Your task to perform on an android device: toggle show notifications on the lock screen Image 0: 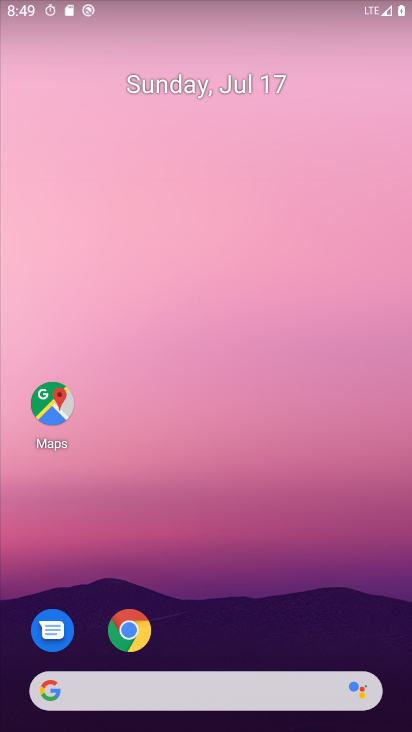
Step 0: drag from (137, 304) to (206, 13)
Your task to perform on an android device: toggle show notifications on the lock screen Image 1: 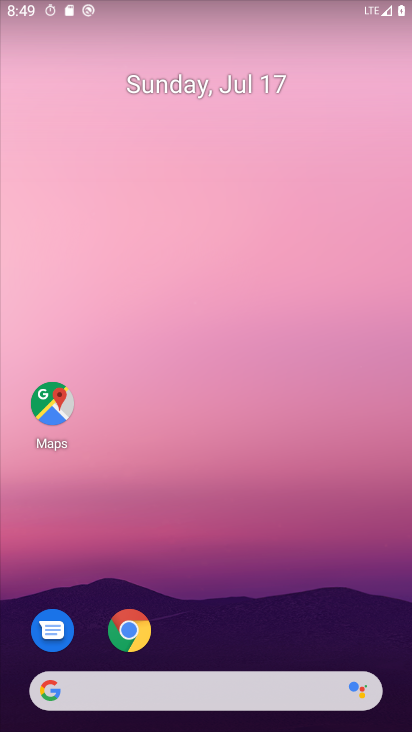
Step 1: drag from (210, 641) to (123, 18)
Your task to perform on an android device: toggle show notifications on the lock screen Image 2: 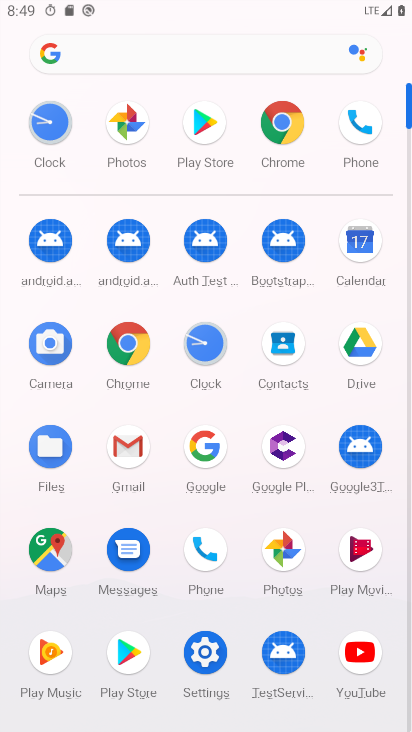
Step 2: click (213, 670)
Your task to perform on an android device: toggle show notifications on the lock screen Image 3: 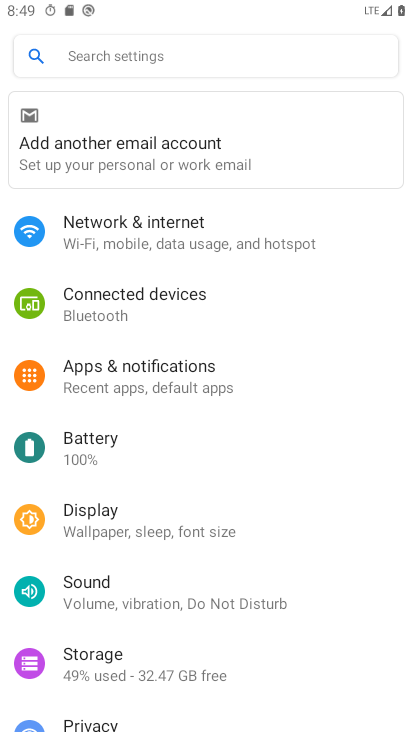
Step 3: click (128, 384)
Your task to perform on an android device: toggle show notifications on the lock screen Image 4: 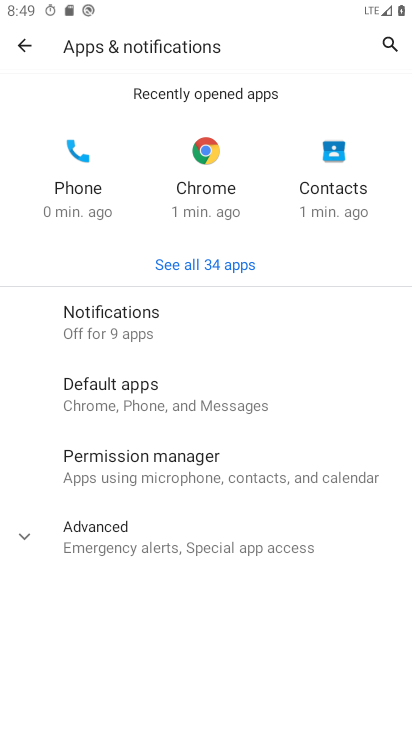
Step 4: click (134, 332)
Your task to perform on an android device: toggle show notifications on the lock screen Image 5: 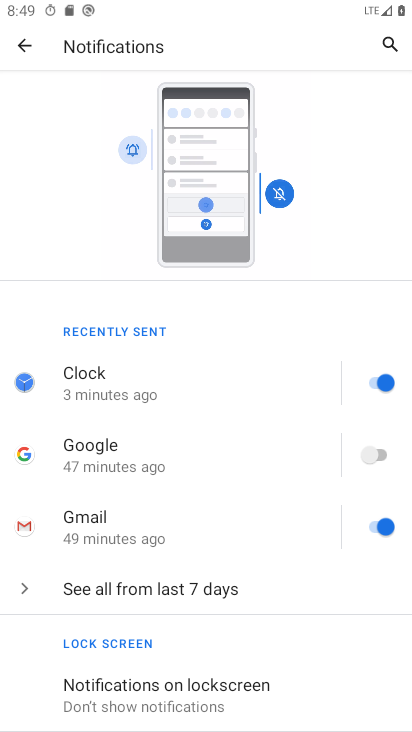
Step 5: drag from (160, 558) to (155, 379)
Your task to perform on an android device: toggle show notifications on the lock screen Image 6: 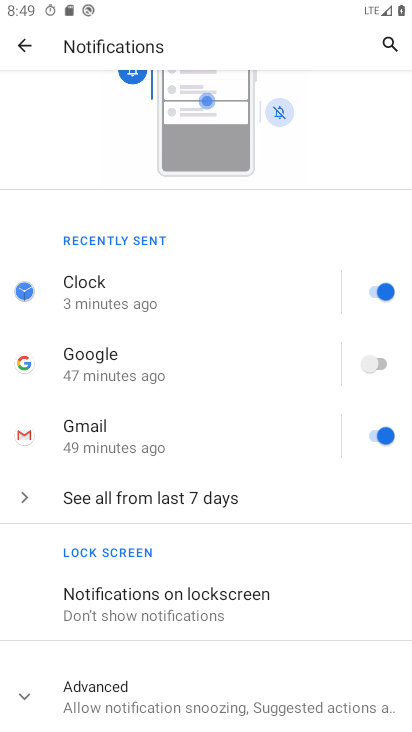
Step 6: click (147, 606)
Your task to perform on an android device: toggle show notifications on the lock screen Image 7: 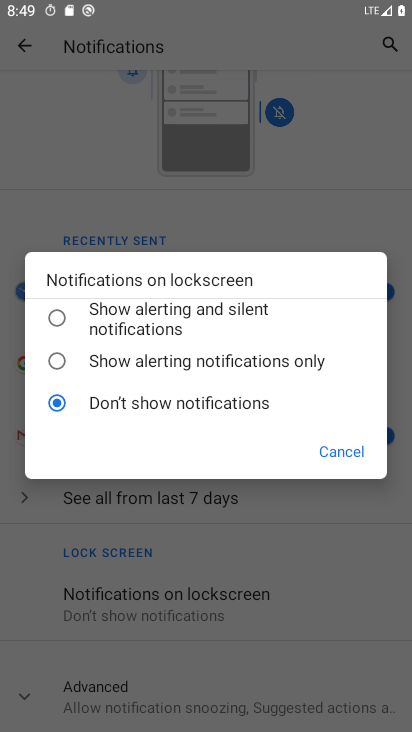
Step 7: click (53, 313)
Your task to perform on an android device: toggle show notifications on the lock screen Image 8: 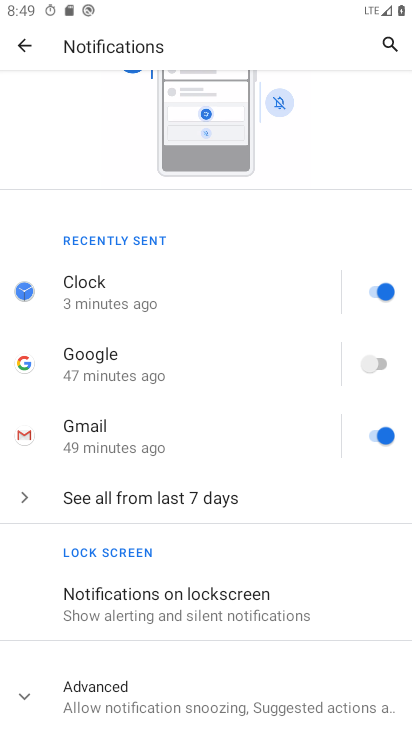
Step 8: task complete